Your task to perform on an android device: What's the weather? Image 0: 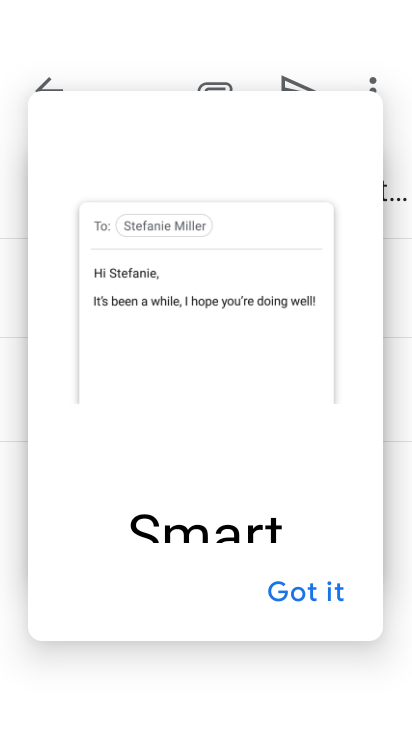
Step 0: press home button
Your task to perform on an android device: What's the weather? Image 1: 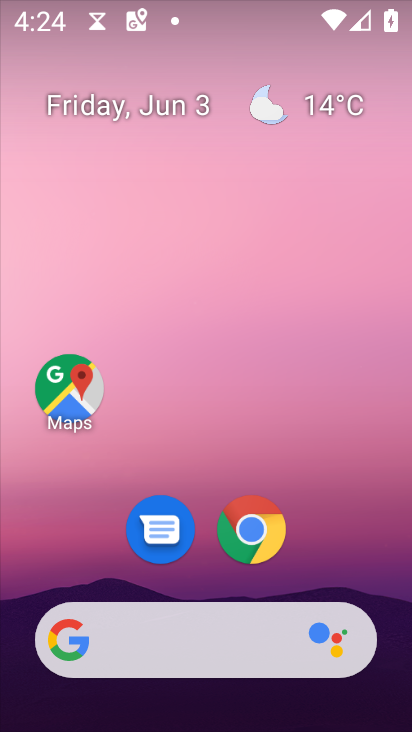
Step 1: click (327, 111)
Your task to perform on an android device: What's the weather? Image 2: 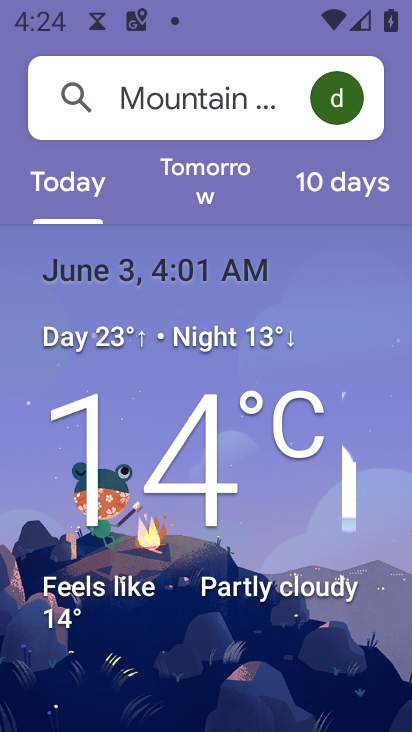
Step 2: task complete